Your task to perform on an android device: Open settings on Google Maps Image 0: 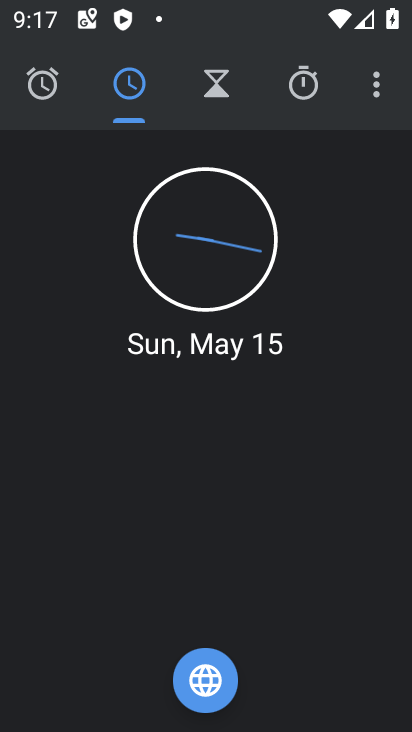
Step 0: press back button
Your task to perform on an android device: Open settings on Google Maps Image 1: 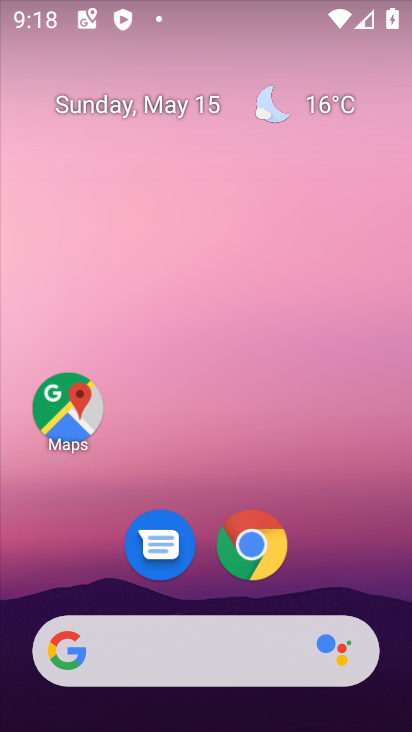
Step 1: click (67, 410)
Your task to perform on an android device: Open settings on Google Maps Image 2: 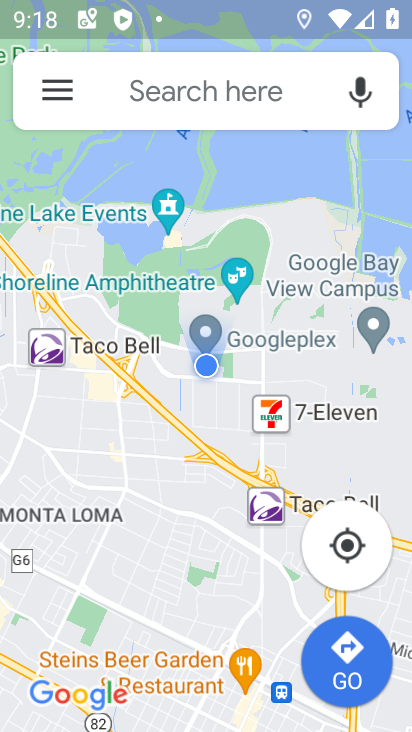
Step 2: click (60, 94)
Your task to perform on an android device: Open settings on Google Maps Image 3: 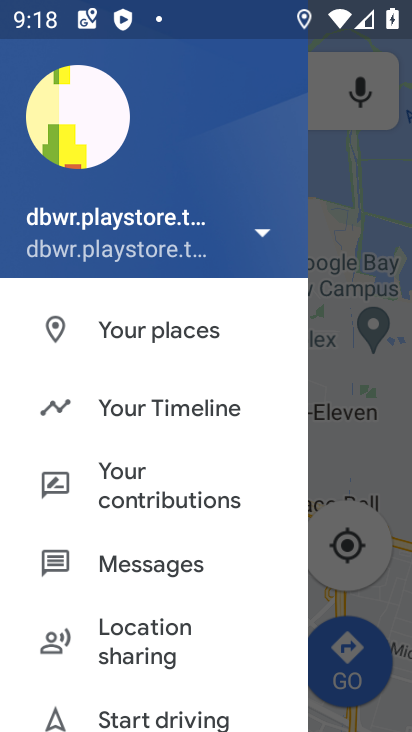
Step 3: drag from (175, 458) to (189, 360)
Your task to perform on an android device: Open settings on Google Maps Image 4: 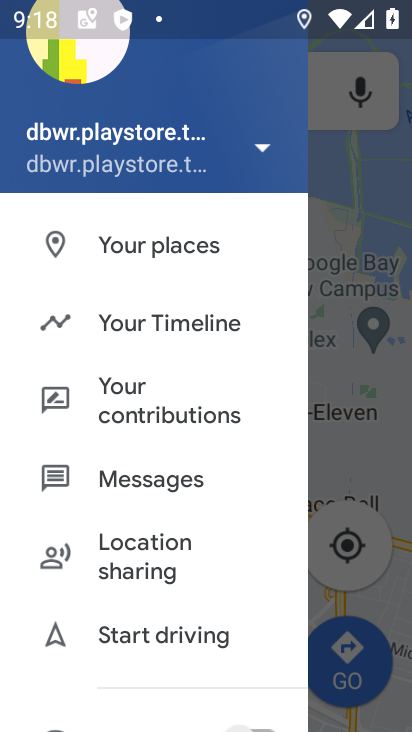
Step 4: drag from (150, 450) to (151, 345)
Your task to perform on an android device: Open settings on Google Maps Image 5: 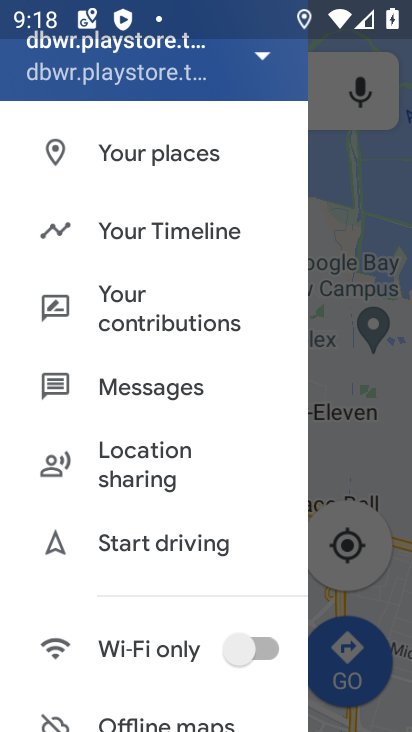
Step 5: drag from (125, 419) to (164, 340)
Your task to perform on an android device: Open settings on Google Maps Image 6: 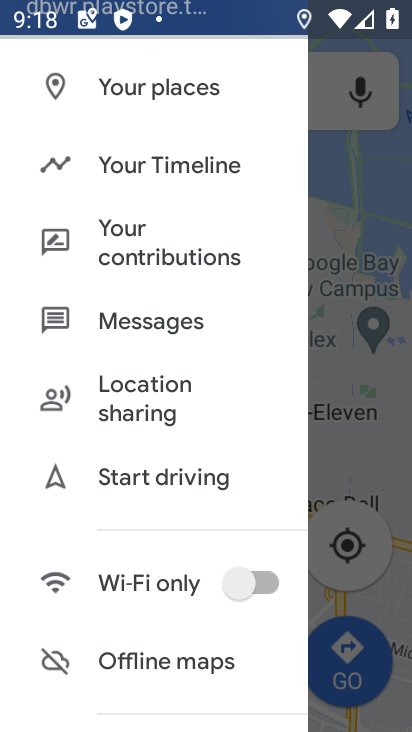
Step 6: drag from (124, 462) to (164, 370)
Your task to perform on an android device: Open settings on Google Maps Image 7: 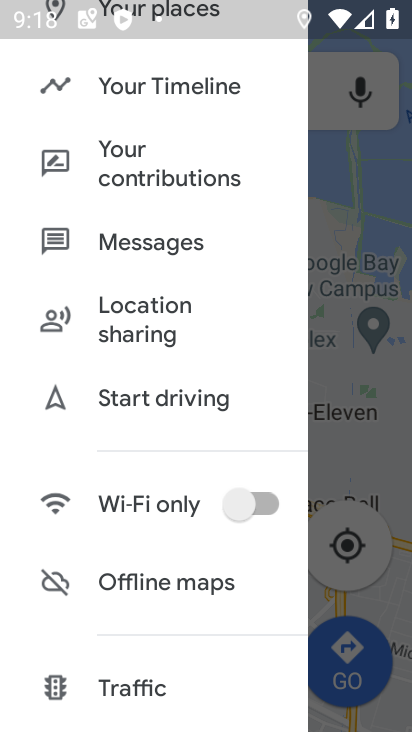
Step 7: drag from (131, 482) to (183, 391)
Your task to perform on an android device: Open settings on Google Maps Image 8: 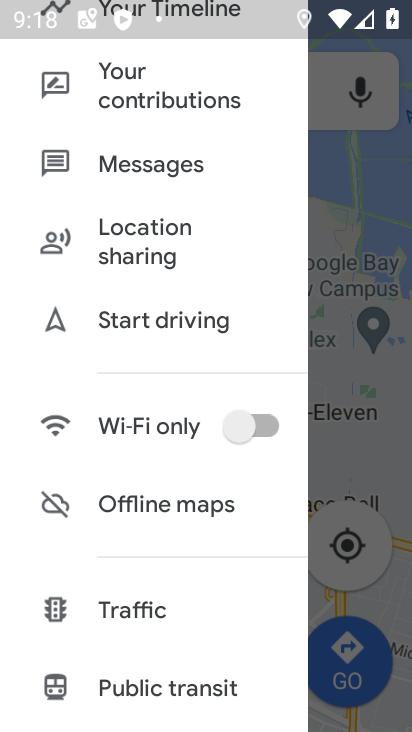
Step 8: drag from (107, 545) to (184, 403)
Your task to perform on an android device: Open settings on Google Maps Image 9: 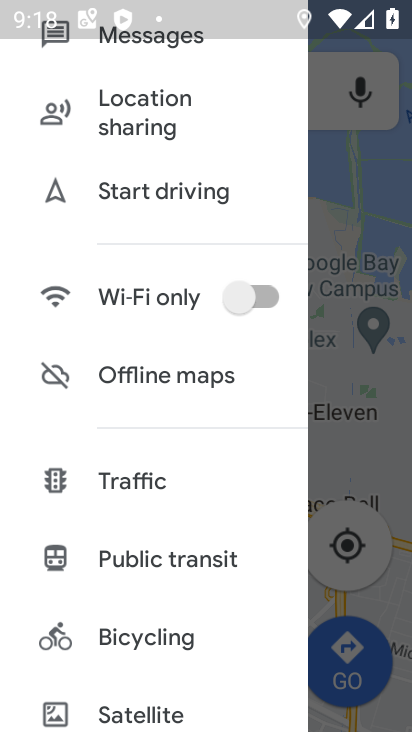
Step 9: drag from (118, 437) to (164, 349)
Your task to perform on an android device: Open settings on Google Maps Image 10: 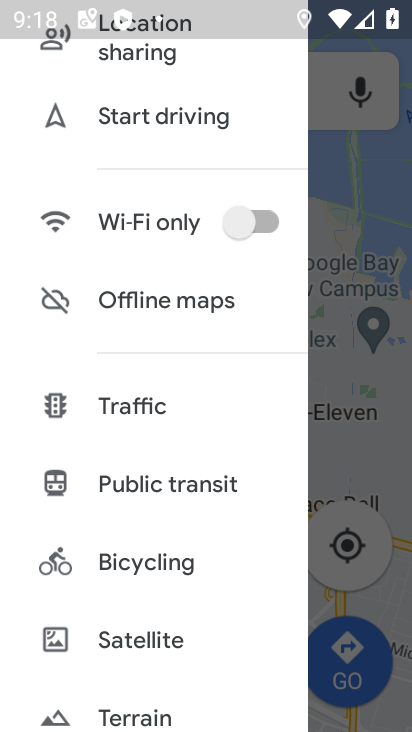
Step 10: drag from (135, 512) to (200, 405)
Your task to perform on an android device: Open settings on Google Maps Image 11: 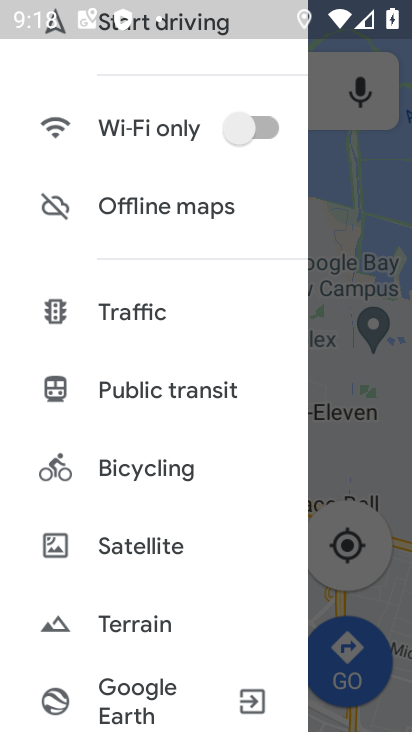
Step 11: drag from (129, 517) to (171, 410)
Your task to perform on an android device: Open settings on Google Maps Image 12: 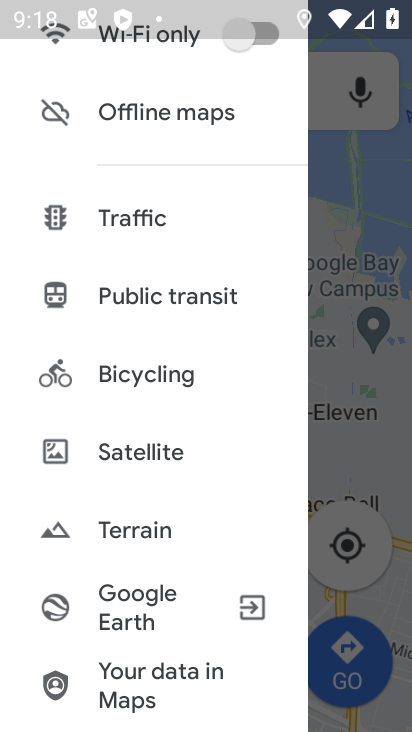
Step 12: drag from (125, 496) to (192, 377)
Your task to perform on an android device: Open settings on Google Maps Image 13: 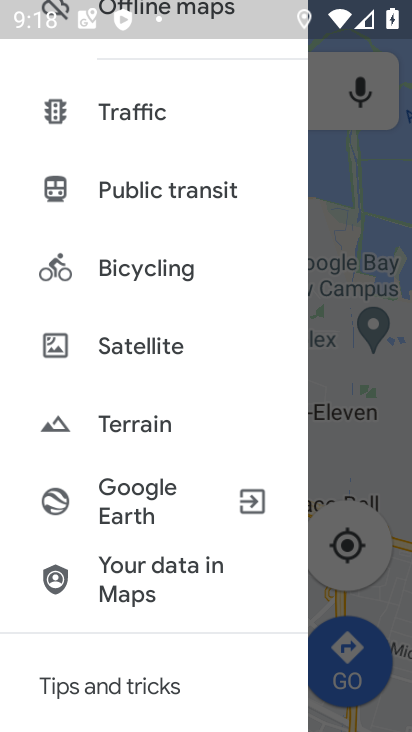
Step 13: drag from (122, 457) to (151, 362)
Your task to perform on an android device: Open settings on Google Maps Image 14: 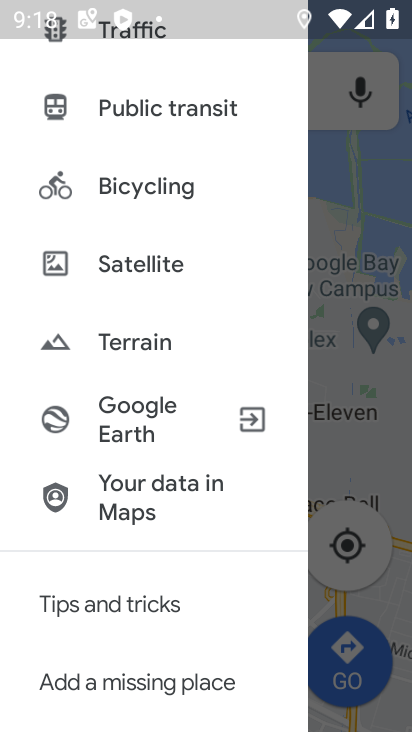
Step 14: drag from (99, 569) to (155, 413)
Your task to perform on an android device: Open settings on Google Maps Image 15: 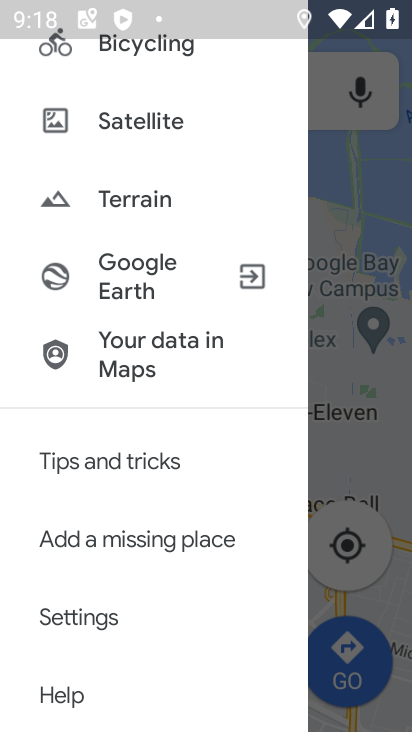
Step 15: click (70, 624)
Your task to perform on an android device: Open settings on Google Maps Image 16: 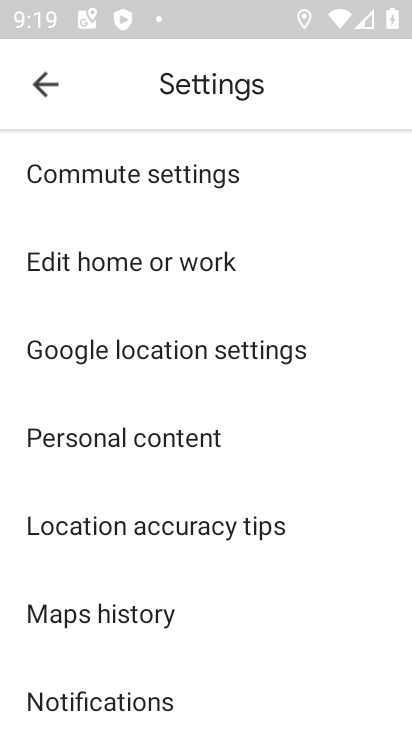
Step 16: task complete